Your task to perform on an android device: see sites visited before in the chrome app Image 0: 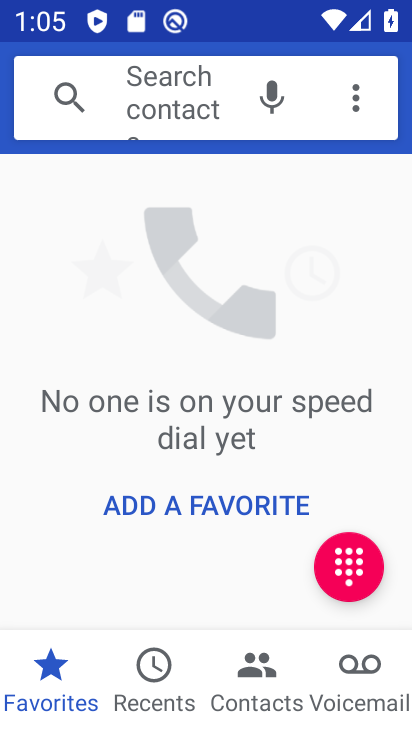
Step 0: press home button
Your task to perform on an android device: see sites visited before in the chrome app Image 1: 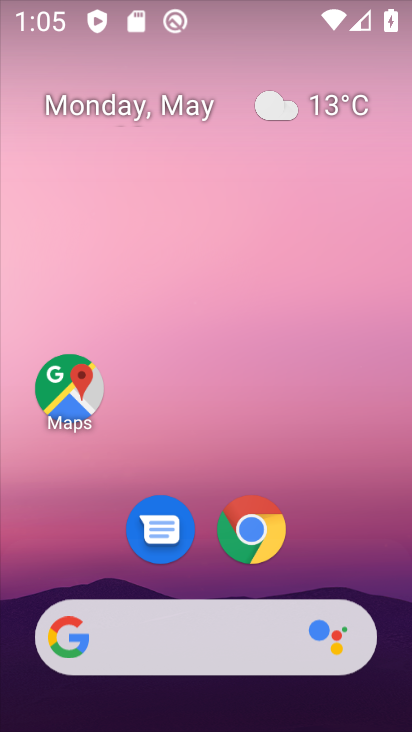
Step 1: click (273, 534)
Your task to perform on an android device: see sites visited before in the chrome app Image 2: 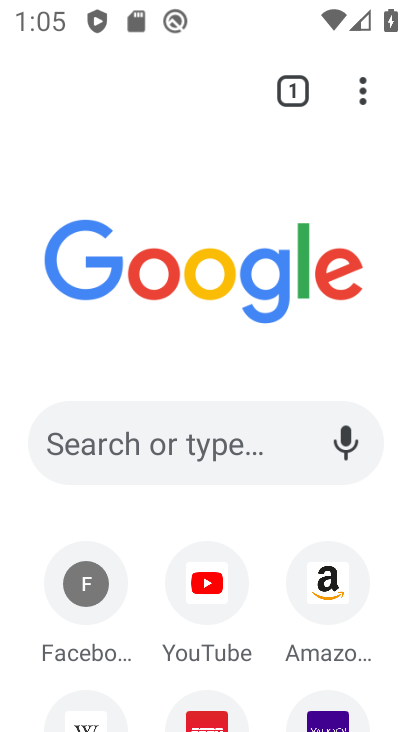
Step 2: click (367, 106)
Your task to perform on an android device: see sites visited before in the chrome app Image 3: 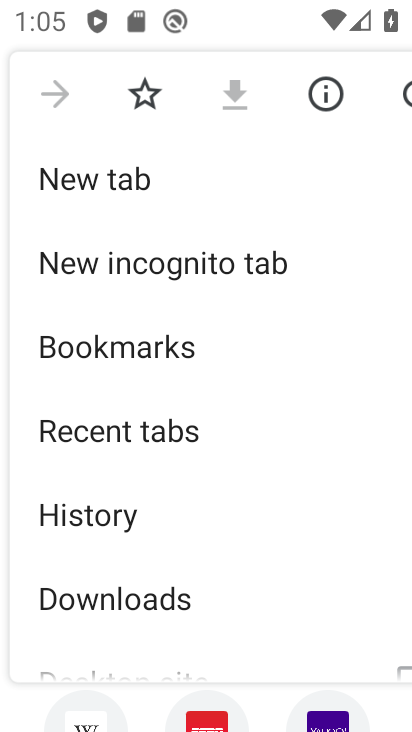
Step 3: click (210, 516)
Your task to perform on an android device: see sites visited before in the chrome app Image 4: 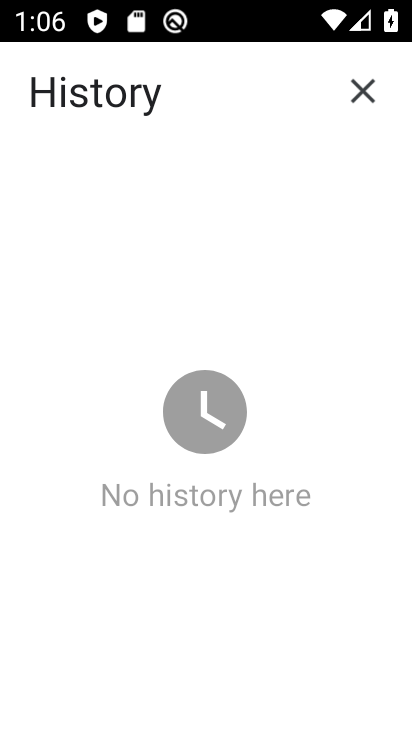
Step 4: task complete